Your task to perform on an android device: find photos in the google photos app Image 0: 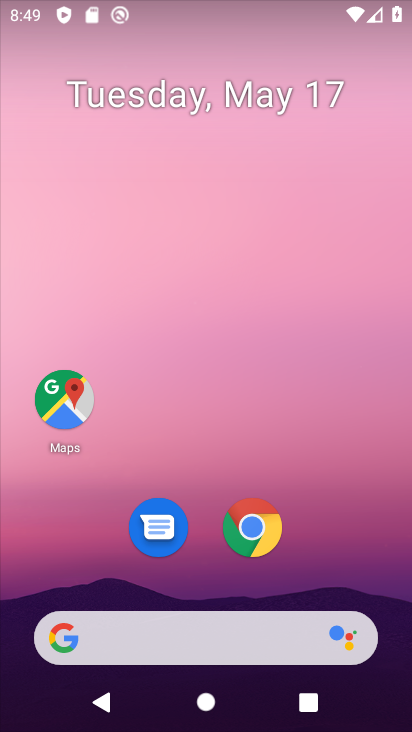
Step 0: drag from (369, 564) to (365, 65)
Your task to perform on an android device: find photos in the google photos app Image 1: 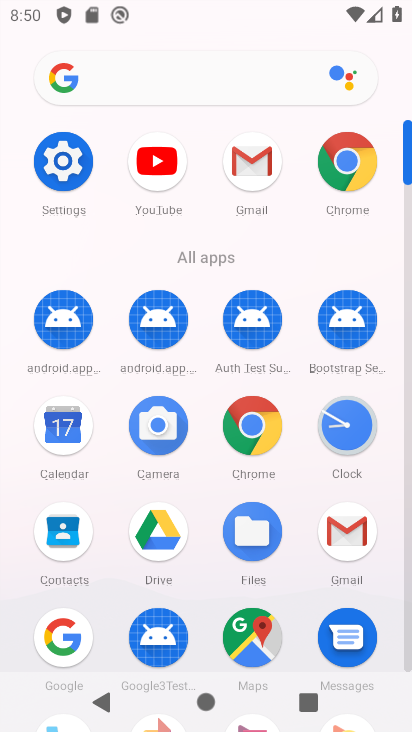
Step 1: click (407, 658)
Your task to perform on an android device: find photos in the google photos app Image 2: 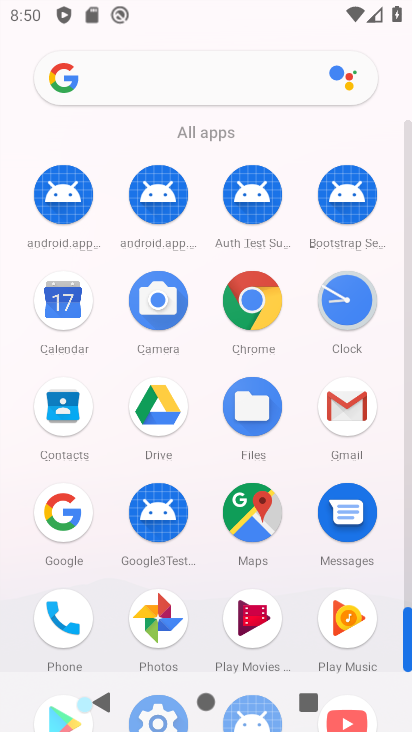
Step 2: click (407, 658)
Your task to perform on an android device: find photos in the google photos app Image 3: 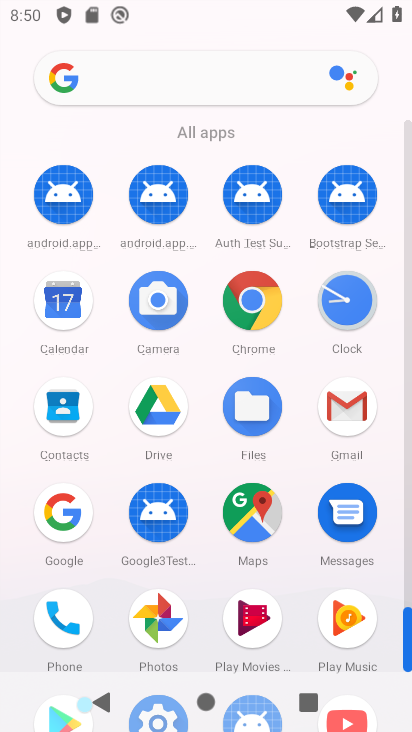
Step 3: click (164, 606)
Your task to perform on an android device: find photos in the google photos app Image 4: 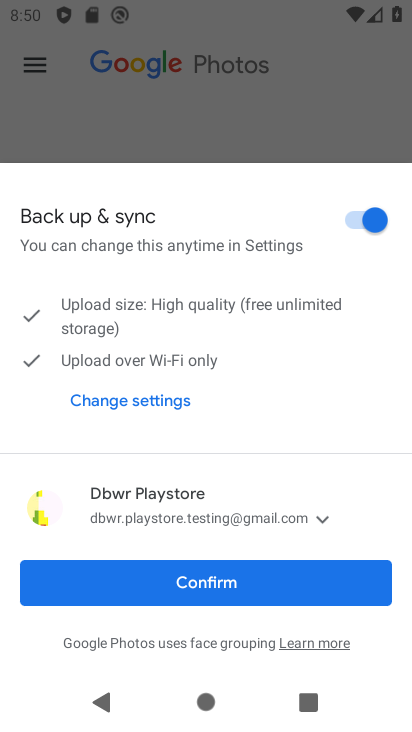
Step 4: click (97, 604)
Your task to perform on an android device: find photos in the google photos app Image 5: 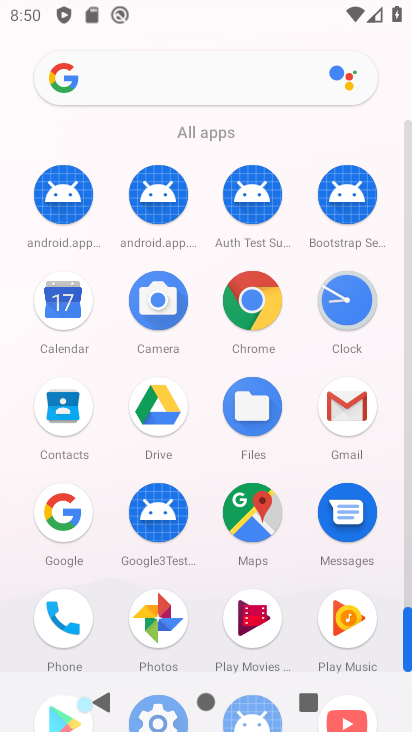
Step 5: click (175, 596)
Your task to perform on an android device: find photos in the google photos app Image 6: 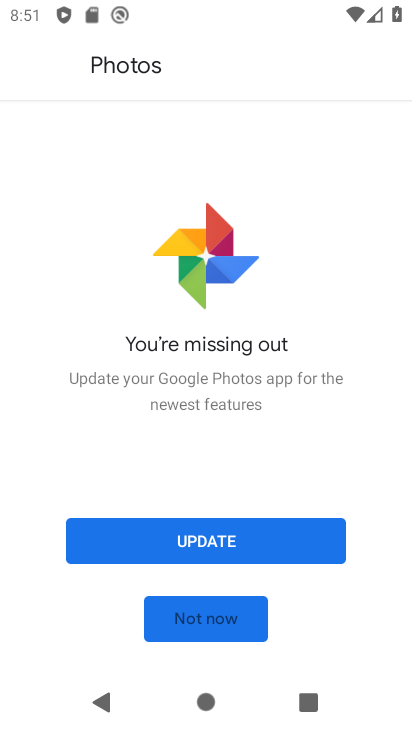
Step 6: click (236, 541)
Your task to perform on an android device: find photos in the google photos app Image 7: 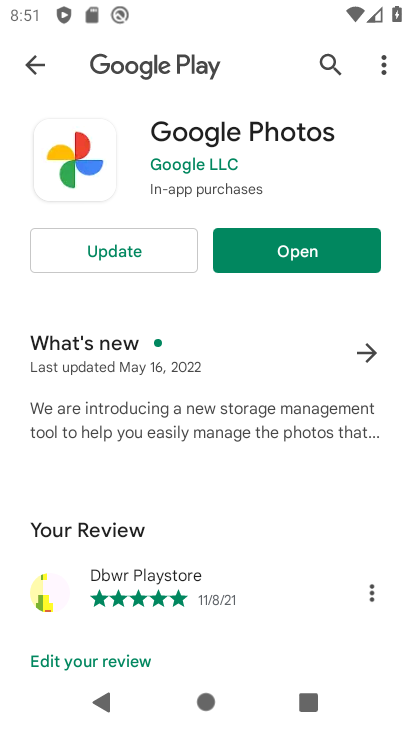
Step 7: click (145, 252)
Your task to perform on an android device: find photos in the google photos app Image 8: 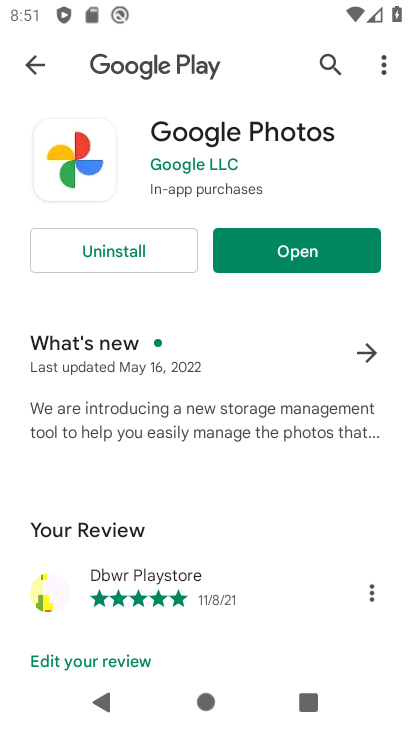
Step 8: click (278, 252)
Your task to perform on an android device: find photos in the google photos app Image 9: 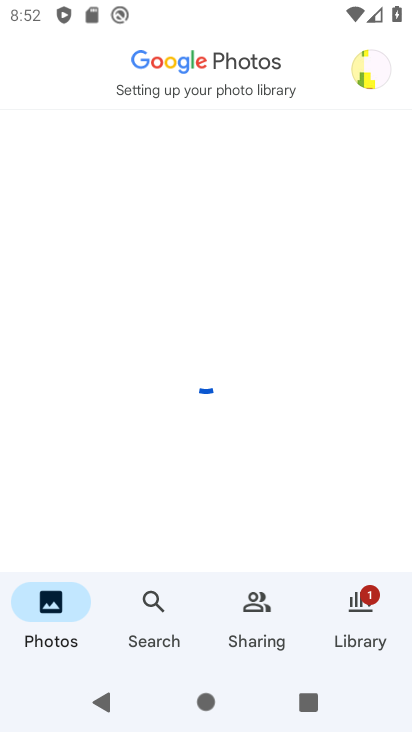
Step 9: task complete